Your task to perform on an android device: turn on airplane mode Image 0: 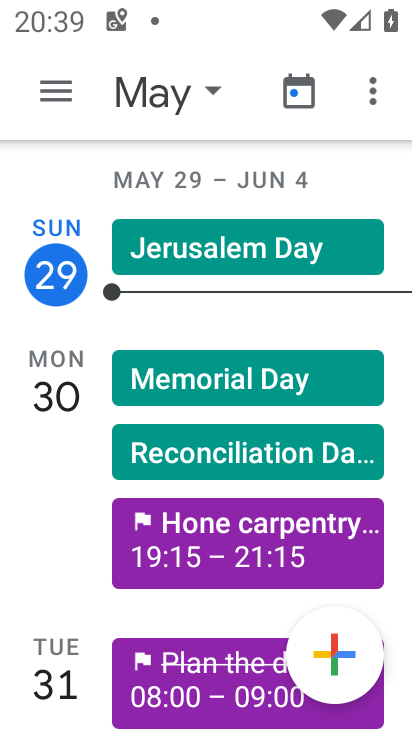
Step 0: press back button
Your task to perform on an android device: turn on airplane mode Image 1: 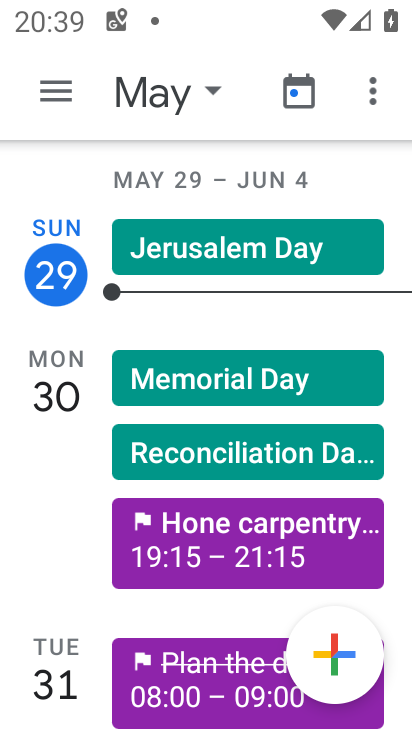
Step 1: press back button
Your task to perform on an android device: turn on airplane mode Image 2: 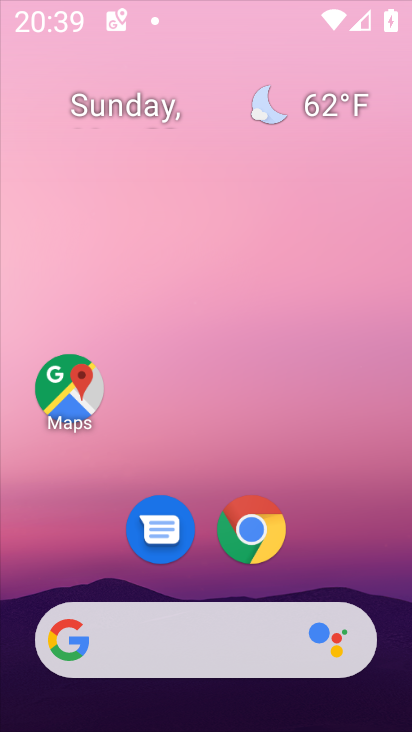
Step 2: press back button
Your task to perform on an android device: turn on airplane mode Image 3: 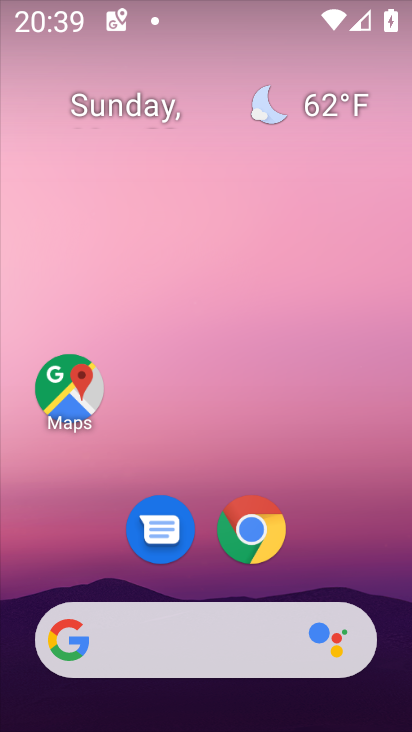
Step 3: drag from (225, 703) to (146, 41)
Your task to perform on an android device: turn on airplane mode Image 4: 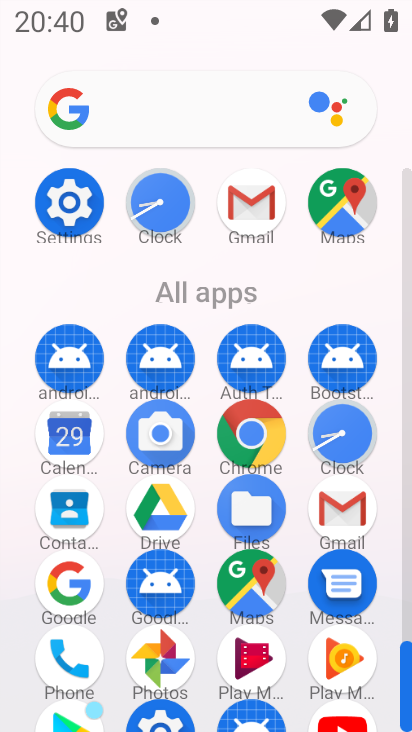
Step 4: click (78, 202)
Your task to perform on an android device: turn on airplane mode Image 5: 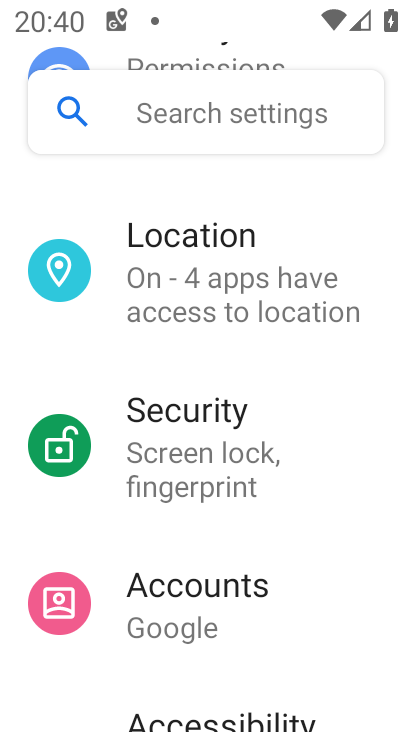
Step 5: click (73, 212)
Your task to perform on an android device: turn on airplane mode Image 6: 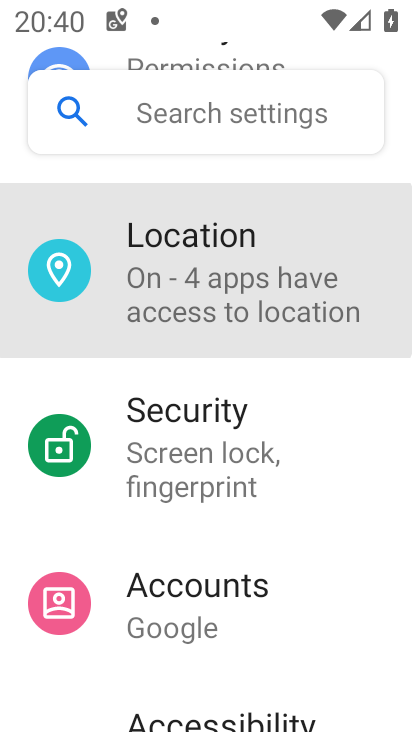
Step 6: click (73, 212)
Your task to perform on an android device: turn on airplane mode Image 7: 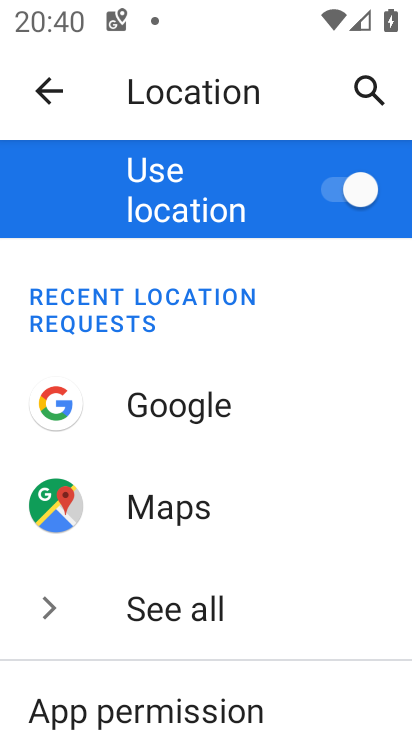
Step 7: click (74, 212)
Your task to perform on an android device: turn on airplane mode Image 8: 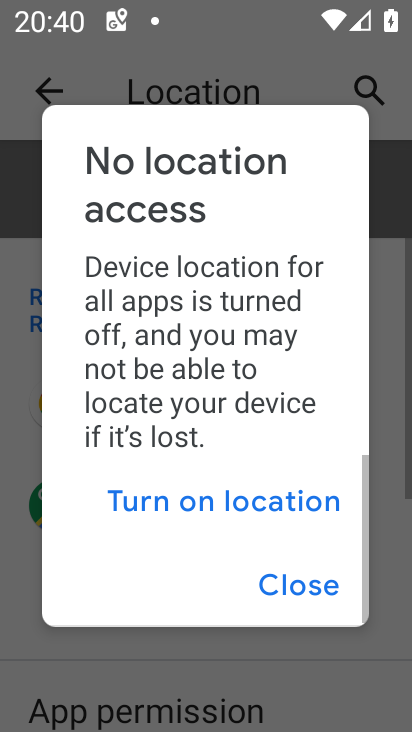
Step 8: drag from (203, 499) to (160, 246)
Your task to perform on an android device: turn on airplane mode Image 9: 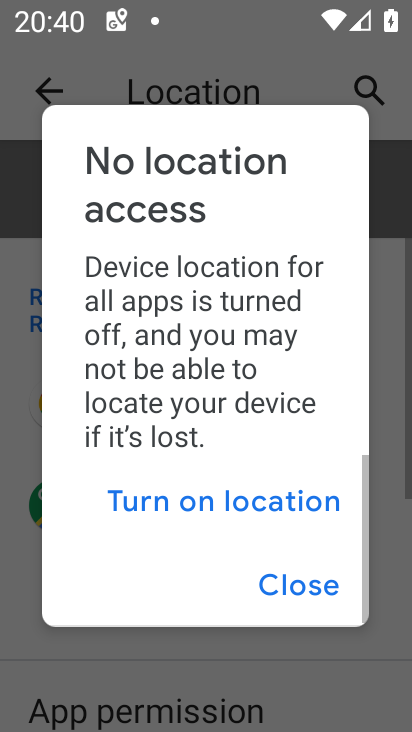
Step 9: drag from (230, 493) to (173, 159)
Your task to perform on an android device: turn on airplane mode Image 10: 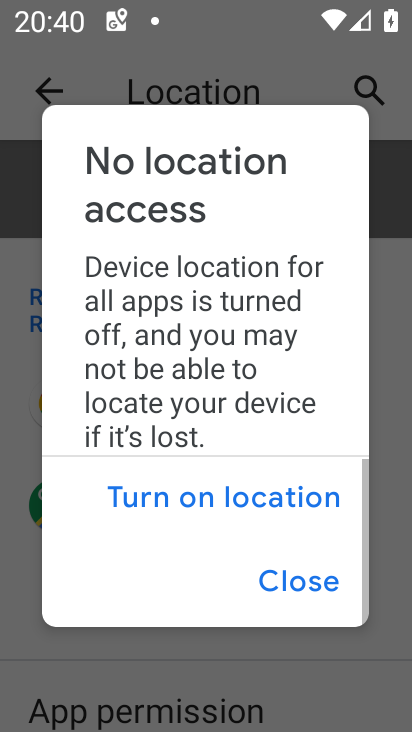
Step 10: click (289, 583)
Your task to perform on an android device: turn on airplane mode Image 11: 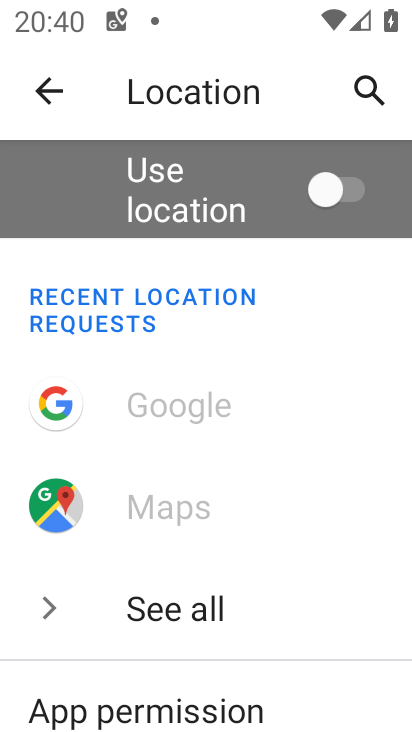
Step 11: click (331, 195)
Your task to perform on an android device: turn on airplane mode Image 12: 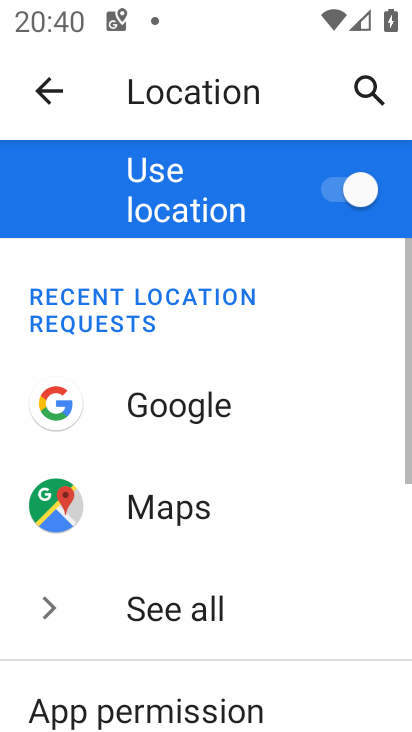
Step 12: click (40, 83)
Your task to perform on an android device: turn on airplane mode Image 13: 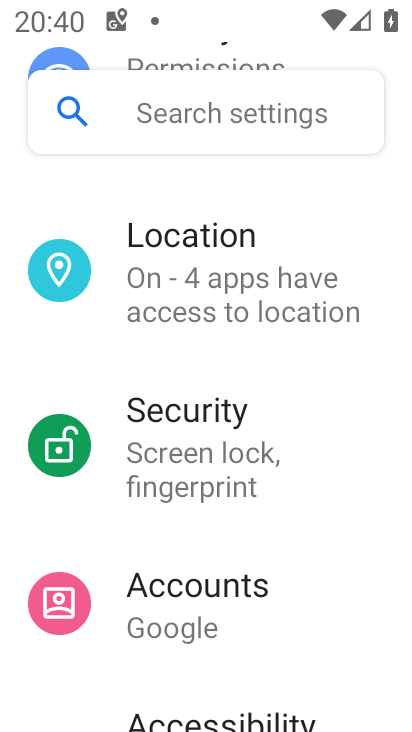
Step 13: drag from (253, 512) to (202, 660)
Your task to perform on an android device: turn on airplane mode Image 14: 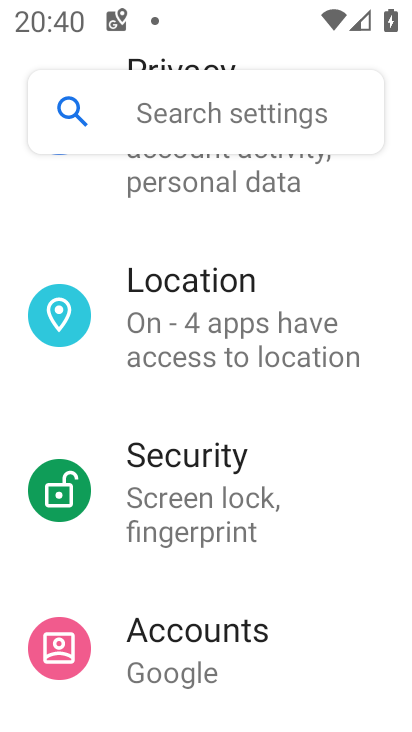
Step 14: drag from (145, 315) to (171, 683)
Your task to perform on an android device: turn on airplane mode Image 15: 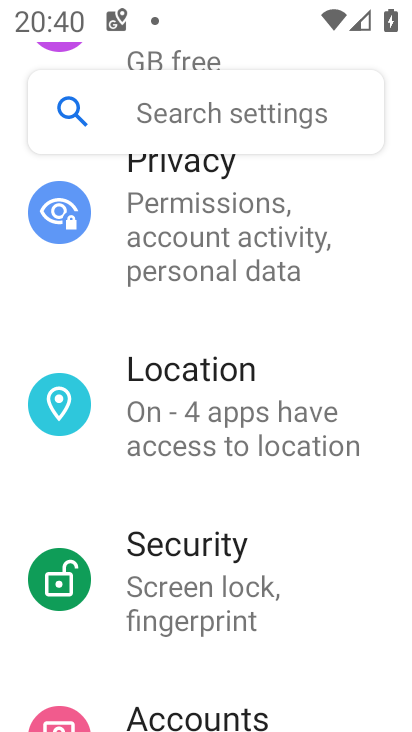
Step 15: drag from (152, 364) to (223, 567)
Your task to perform on an android device: turn on airplane mode Image 16: 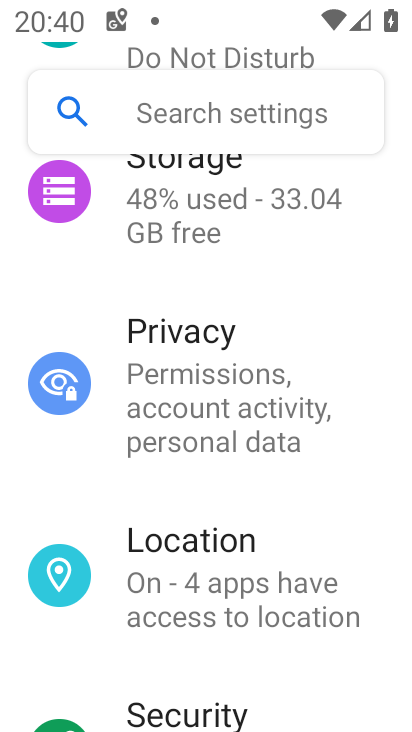
Step 16: drag from (190, 321) to (269, 641)
Your task to perform on an android device: turn on airplane mode Image 17: 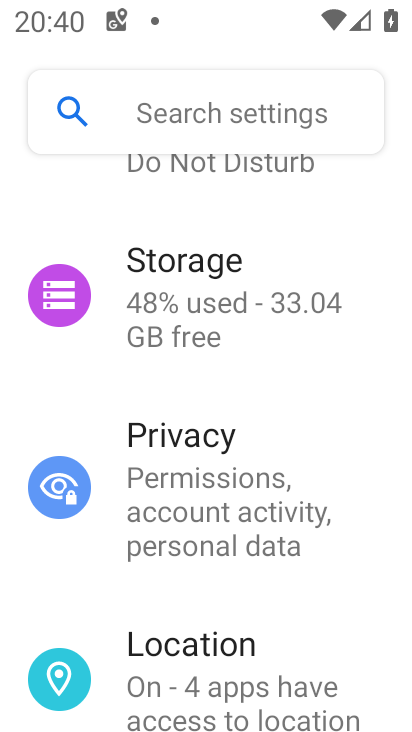
Step 17: drag from (189, 300) to (226, 621)
Your task to perform on an android device: turn on airplane mode Image 18: 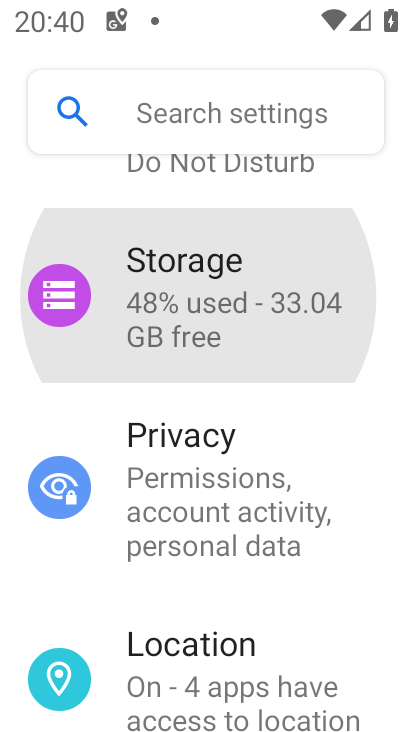
Step 18: drag from (176, 367) to (188, 720)
Your task to perform on an android device: turn on airplane mode Image 19: 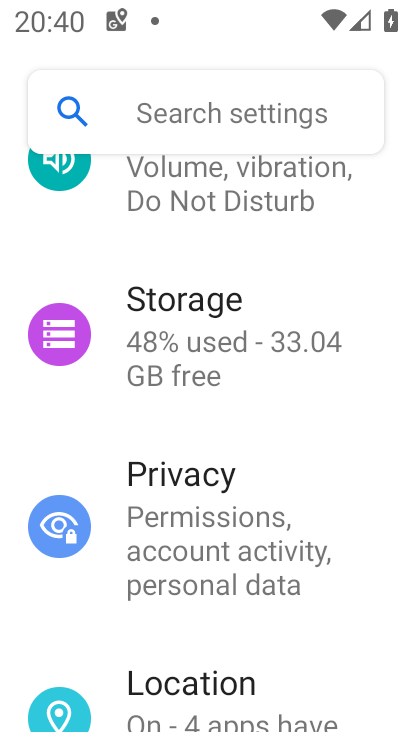
Step 19: drag from (122, 250) to (155, 622)
Your task to perform on an android device: turn on airplane mode Image 20: 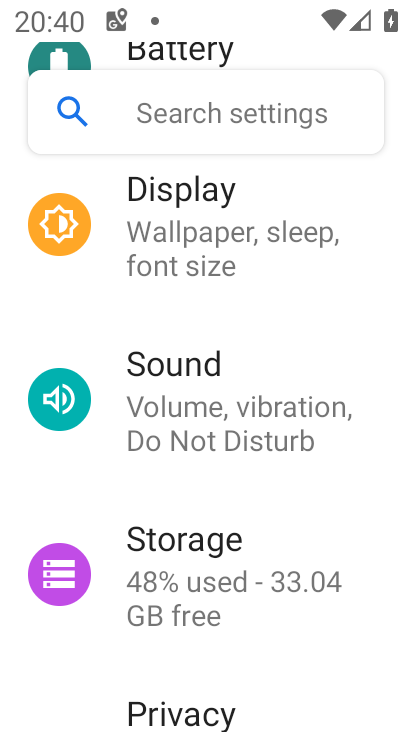
Step 20: drag from (246, 241) to (293, 526)
Your task to perform on an android device: turn on airplane mode Image 21: 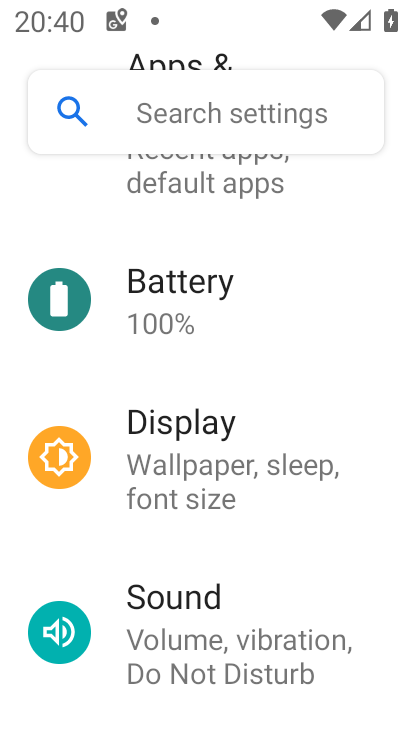
Step 21: drag from (196, 292) to (204, 511)
Your task to perform on an android device: turn on airplane mode Image 22: 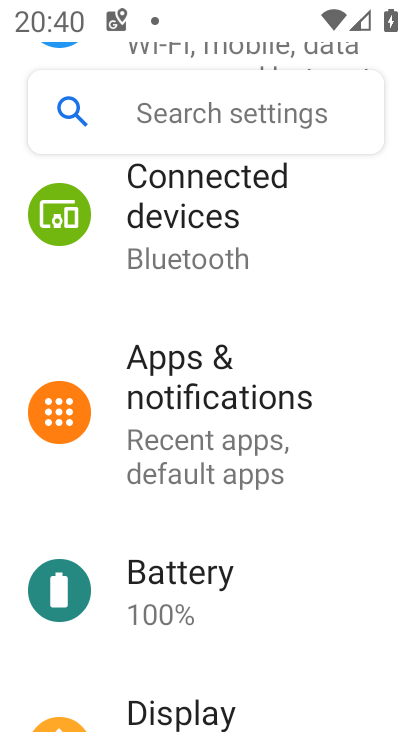
Step 22: drag from (137, 286) to (182, 634)
Your task to perform on an android device: turn on airplane mode Image 23: 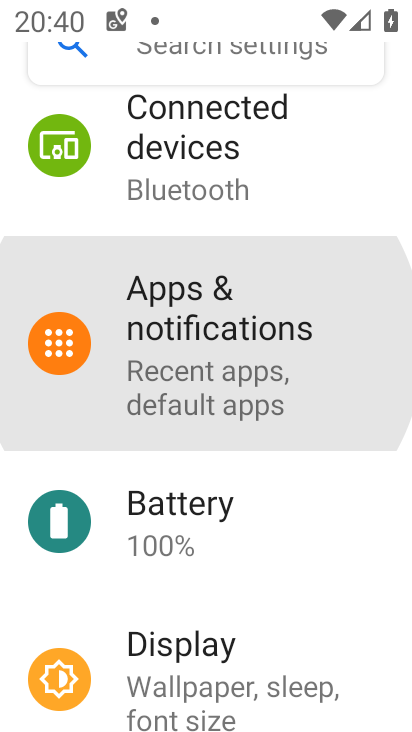
Step 23: drag from (128, 311) to (220, 671)
Your task to perform on an android device: turn on airplane mode Image 24: 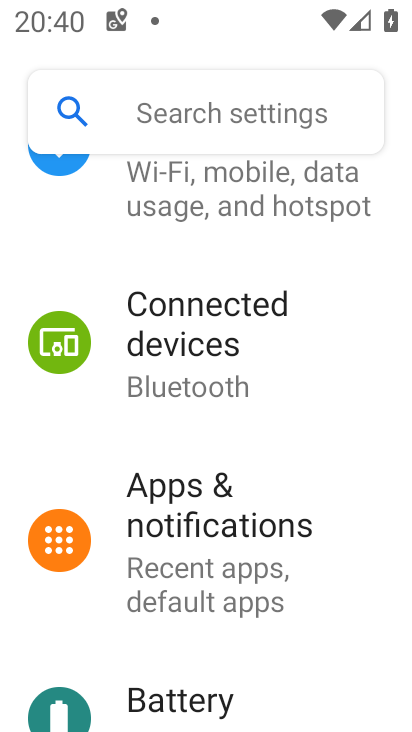
Step 24: drag from (220, 267) to (248, 709)
Your task to perform on an android device: turn on airplane mode Image 25: 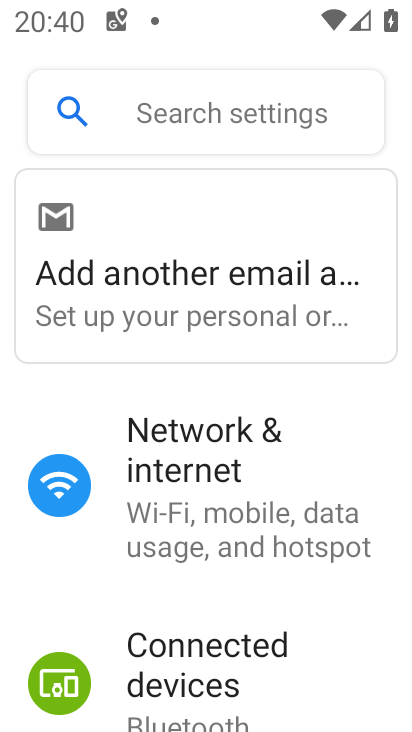
Step 25: drag from (193, 259) to (239, 605)
Your task to perform on an android device: turn on airplane mode Image 26: 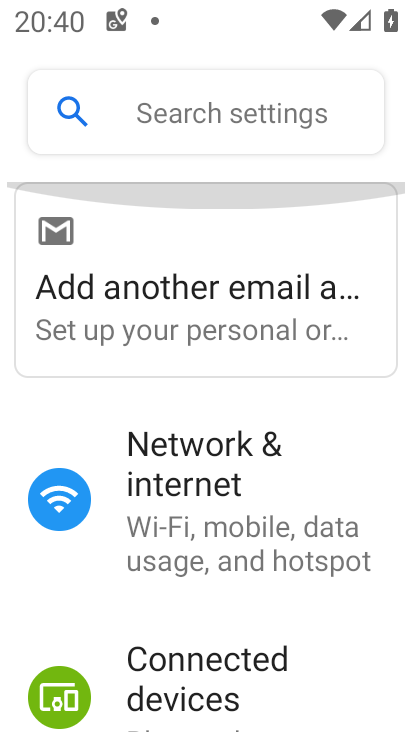
Step 26: drag from (177, 225) to (171, 656)
Your task to perform on an android device: turn on airplane mode Image 27: 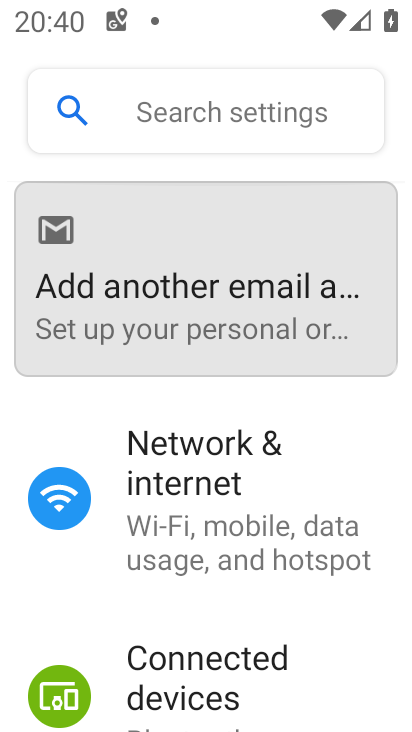
Step 27: drag from (134, 273) to (159, 635)
Your task to perform on an android device: turn on airplane mode Image 28: 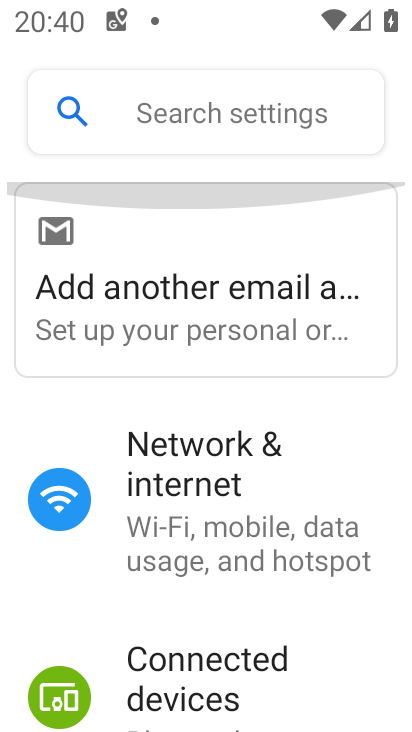
Step 28: drag from (117, 378) to (174, 713)
Your task to perform on an android device: turn on airplane mode Image 29: 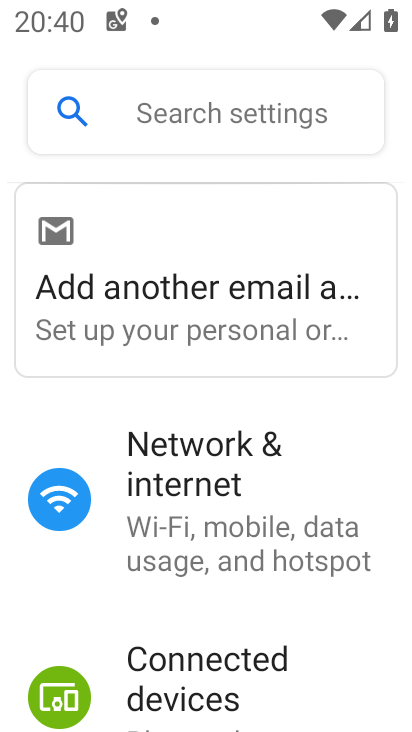
Step 29: drag from (232, 363) to (252, 648)
Your task to perform on an android device: turn on airplane mode Image 30: 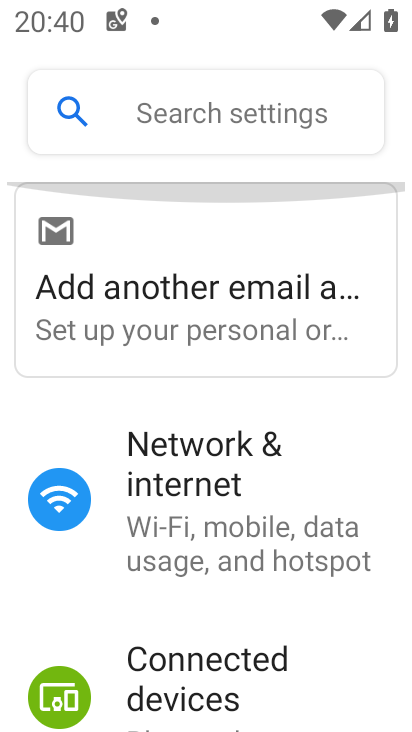
Step 30: drag from (212, 234) to (205, 608)
Your task to perform on an android device: turn on airplane mode Image 31: 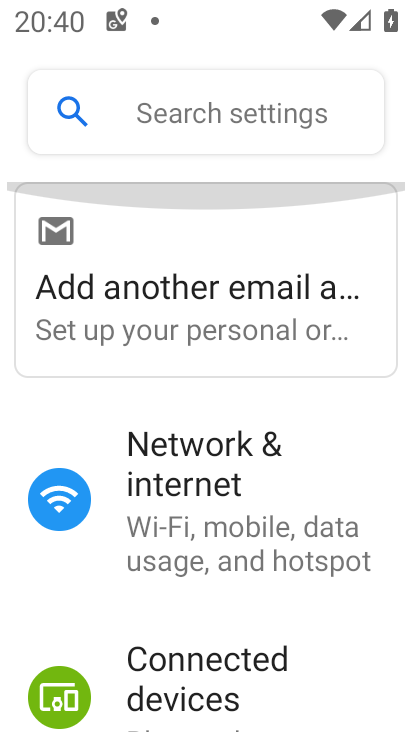
Step 31: drag from (199, 308) to (256, 723)
Your task to perform on an android device: turn on airplane mode Image 32: 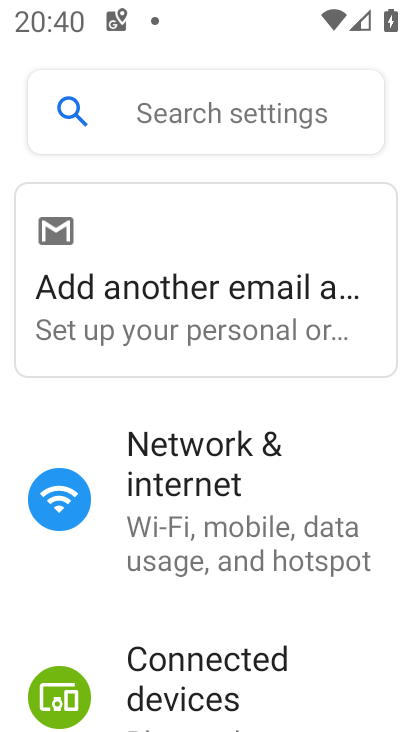
Step 32: click (189, 497)
Your task to perform on an android device: turn on airplane mode Image 33: 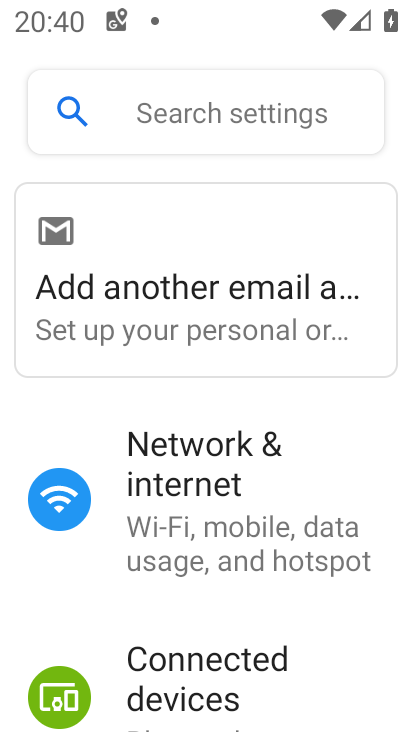
Step 33: click (192, 497)
Your task to perform on an android device: turn on airplane mode Image 34: 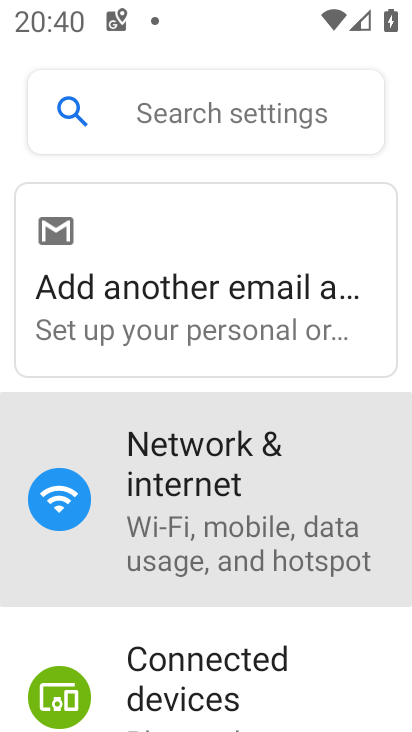
Step 34: click (191, 509)
Your task to perform on an android device: turn on airplane mode Image 35: 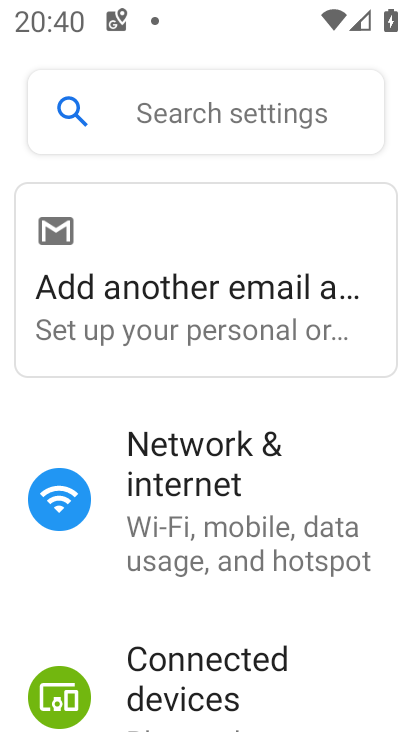
Step 35: click (191, 521)
Your task to perform on an android device: turn on airplane mode Image 36: 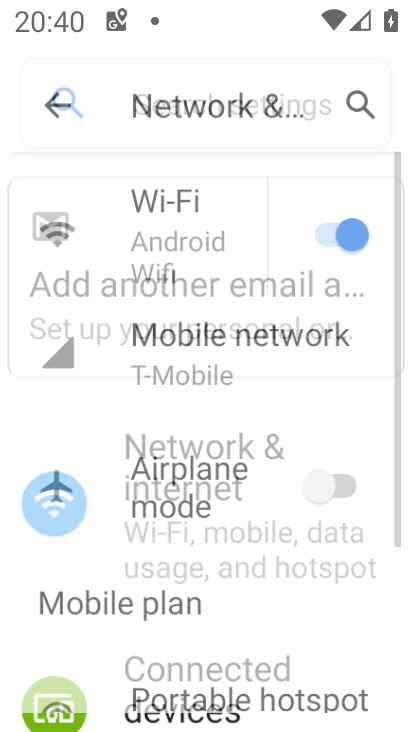
Step 36: click (190, 523)
Your task to perform on an android device: turn on airplane mode Image 37: 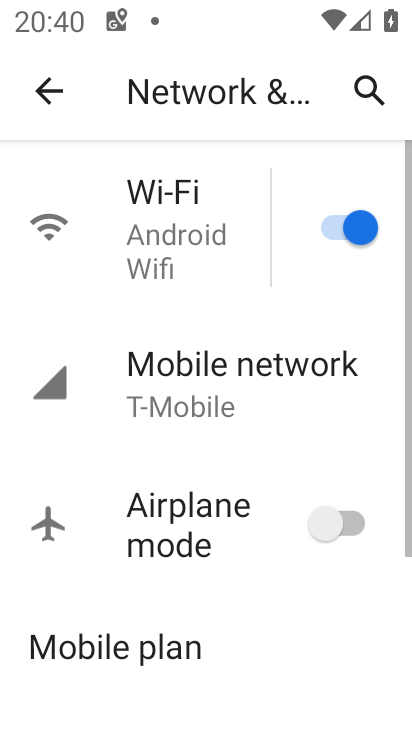
Step 37: click (188, 524)
Your task to perform on an android device: turn on airplane mode Image 38: 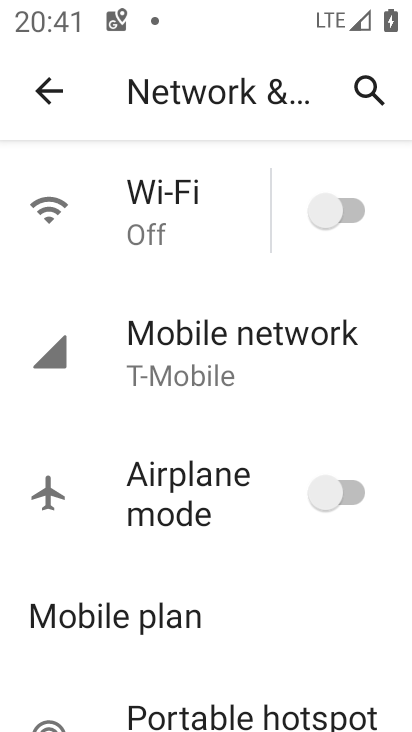
Step 38: click (333, 492)
Your task to perform on an android device: turn on airplane mode Image 39: 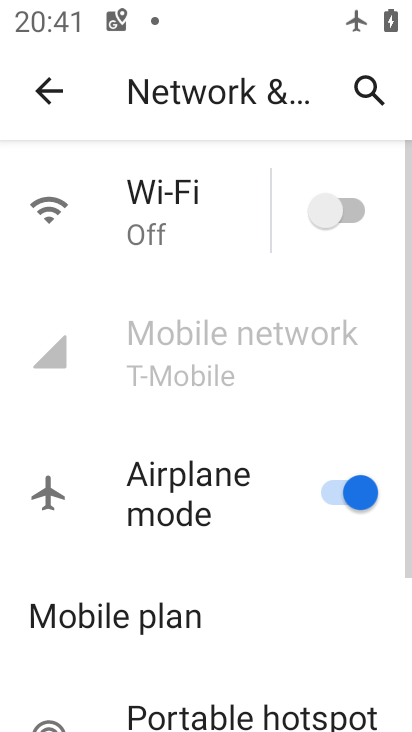
Step 39: task complete